Your task to perform on an android device: turn on sleep mode Image 0: 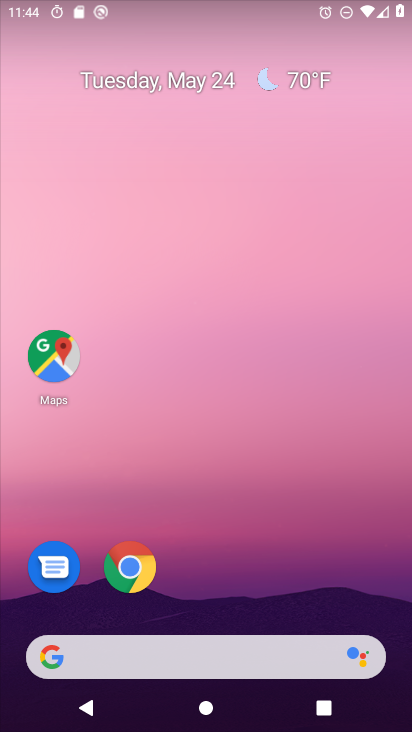
Step 0: drag from (386, 627) to (344, 332)
Your task to perform on an android device: turn on sleep mode Image 1: 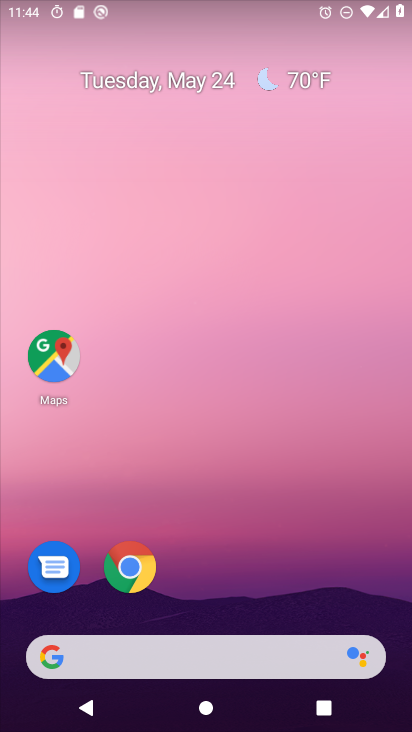
Step 1: drag from (396, 686) to (372, 241)
Your task to perform on an android device: turn on sleep mode Image 2: 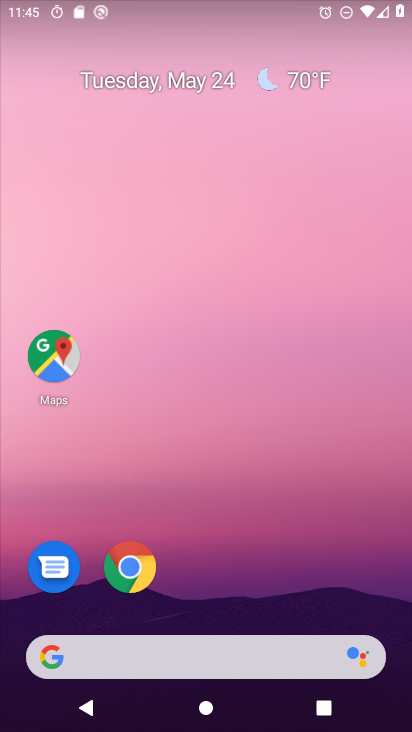
Step 2: drag from (398, 702) to (379, 313)
Your task to perform on an android device: turn on sleep mode Image 3: 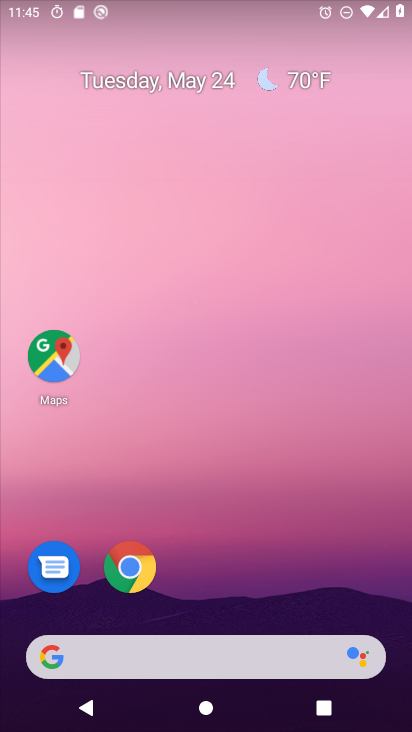
Step 3: drag from (389, 669) to (343, 299)
Your task to perform on an android device: turn on sleep mode Image 4: 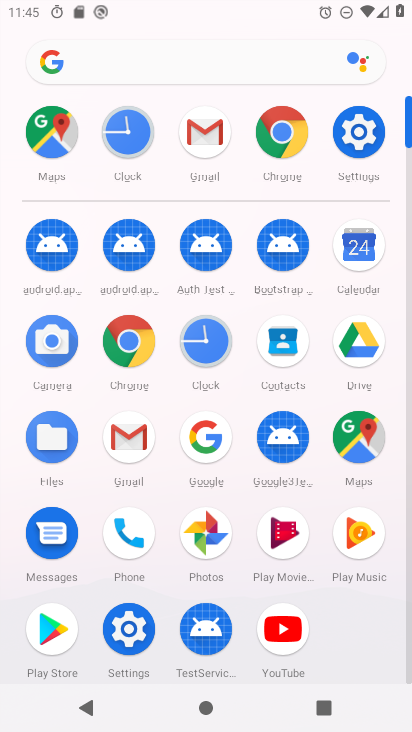
Step 4: click (354, 130)
Your task to perform on an android device: turn on sleep mode Image 5: 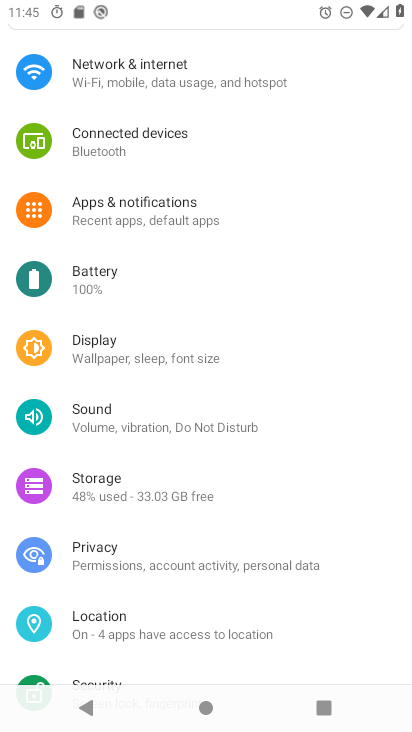
Step 5: click (106, 349)
Your task to perform on an android device: turn on sleep mode Image 6: 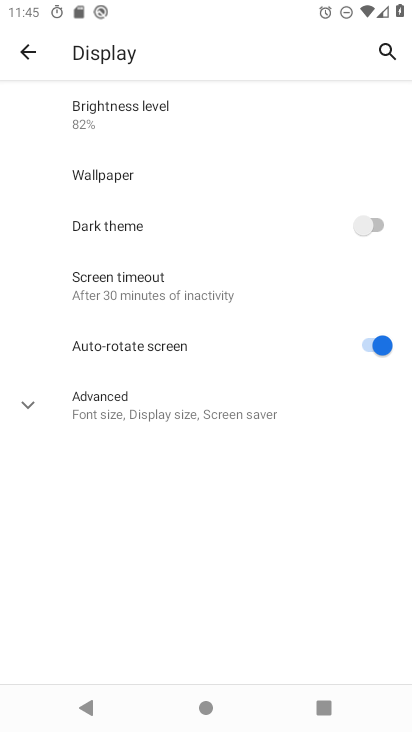
Step 6: click (130, 295)
Your task to perform on an android device: turn on sleep mode Image 7: 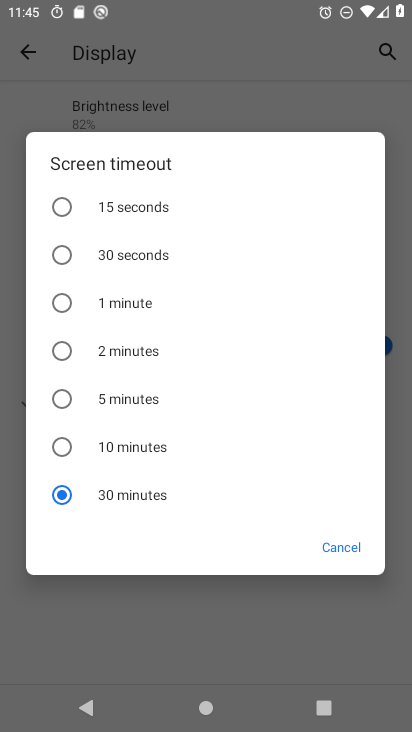
Step 7: task complete